Your task to perform on an android device: Turn on the flashlight Image 0: 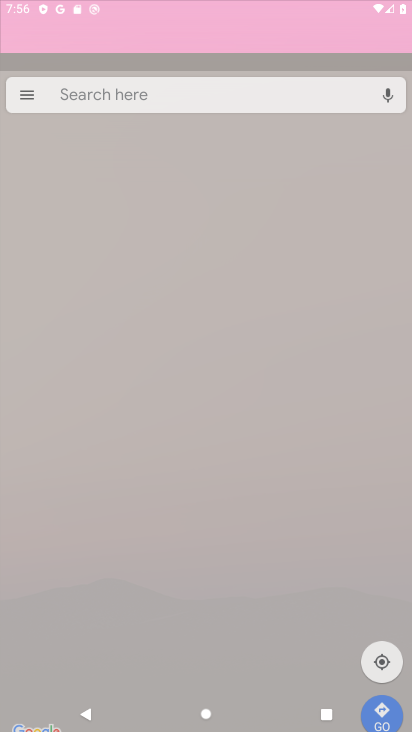
Step 0: click (228, 85)
Your task to perform on an android device: Turn on the flashlight Image 1: 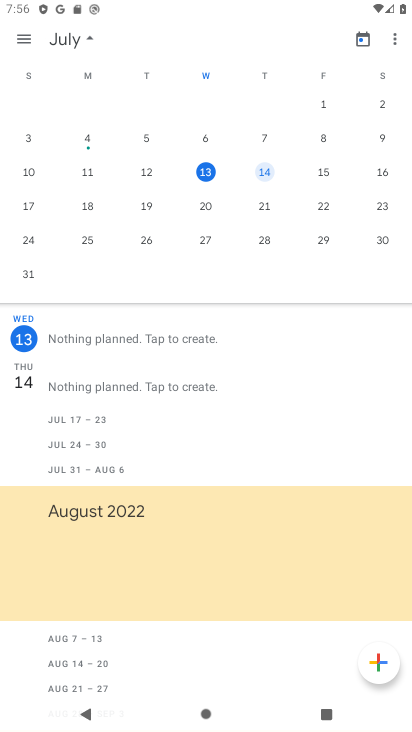
Step 1: task complete